Your task to perform on an android device: turn off data saver in the chrome app Image 0: 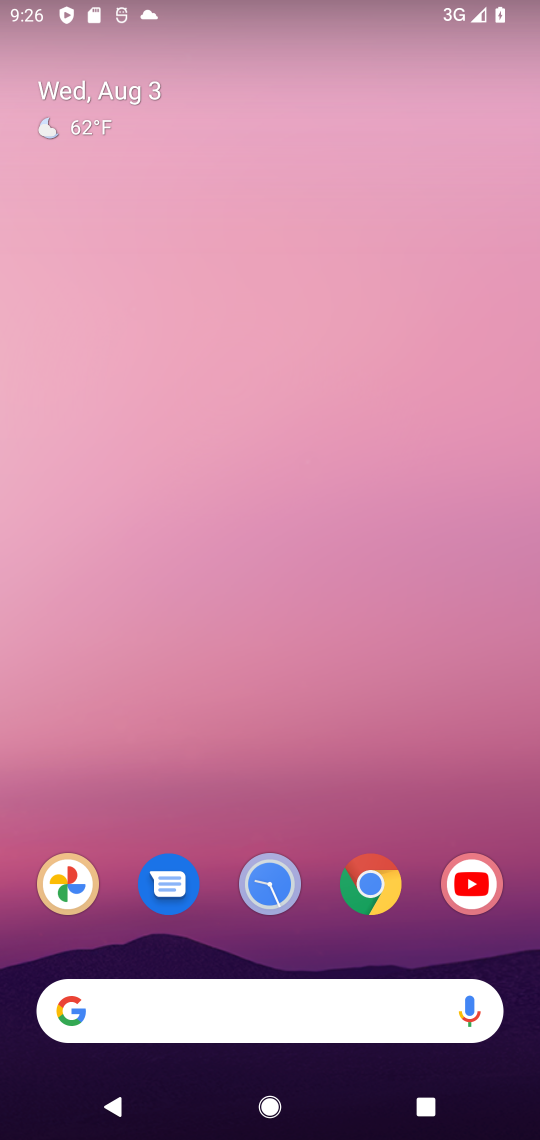
Step 0: click (533, 1124)
Your task to perform on an android device: turn off data saver in the chrome app Image 1: 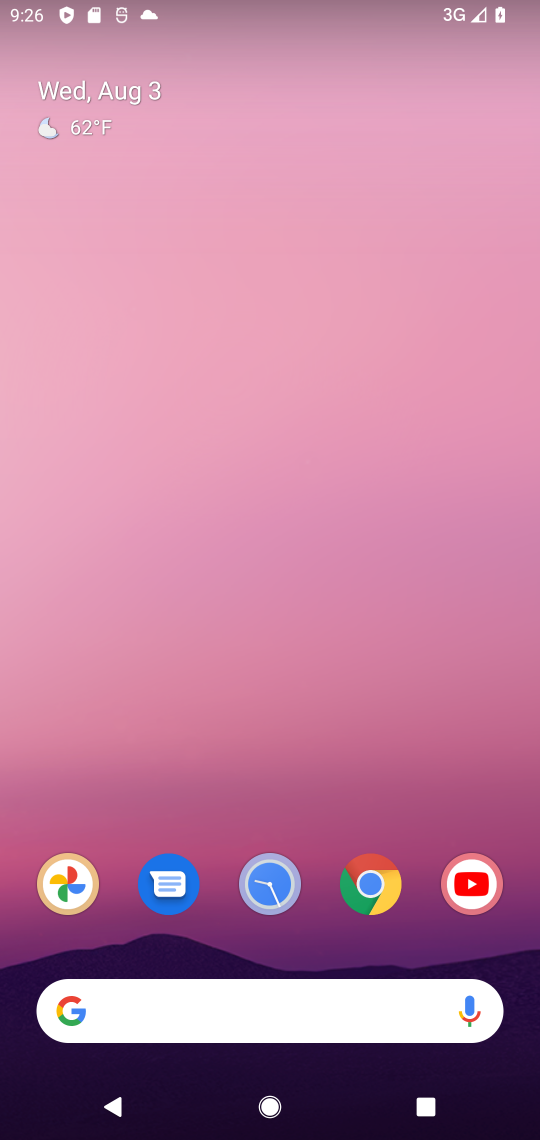
Step 1: drag from (312, 665) to (342, 583)
Your task to perform on an android device: turn off data saver in the chrome app Image 2: 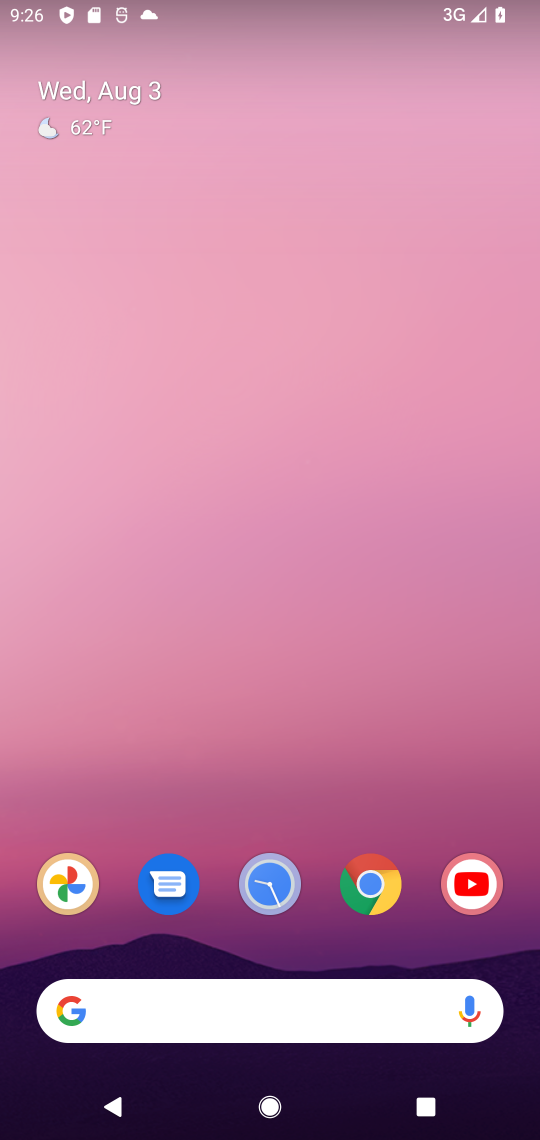
Step 2: click (312, 541)
Your task to perform on an android device: turn off data saver in the chrome app Image 3: 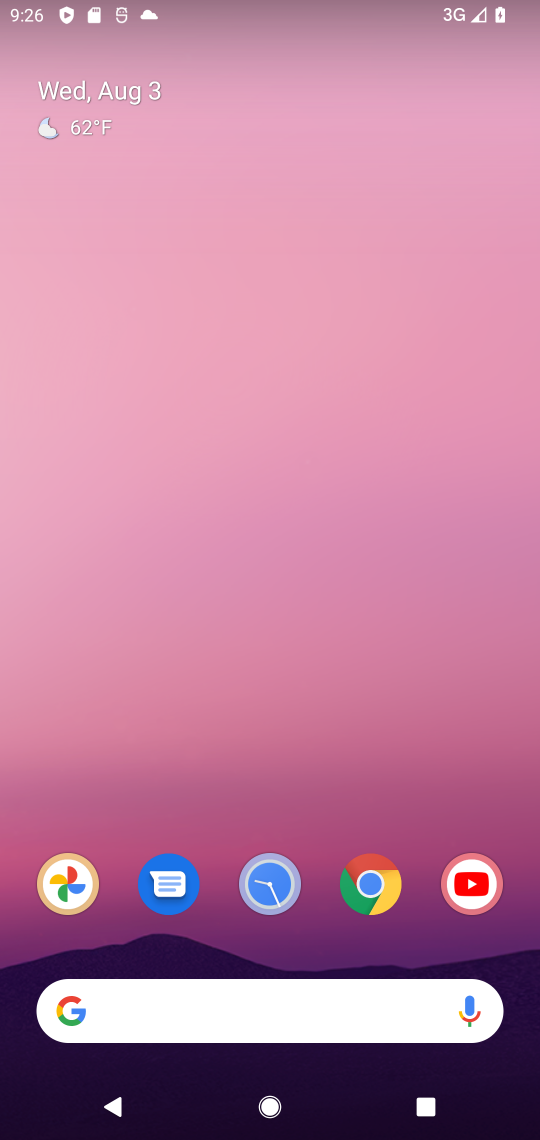
Step 3: drag from (223, 935) to (485, 97)
Your task to perform on an android device: turn off data saver in the chrome app Image 4: 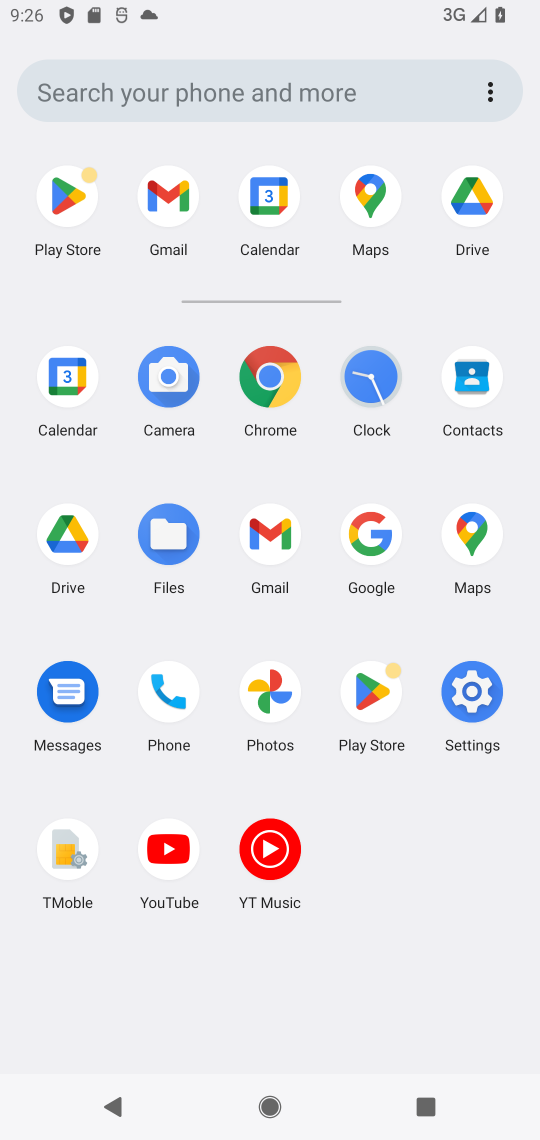
Step 4: click (262, 372)
Your task to perform on an android device: turn off data saver in the chrome app Image 5: 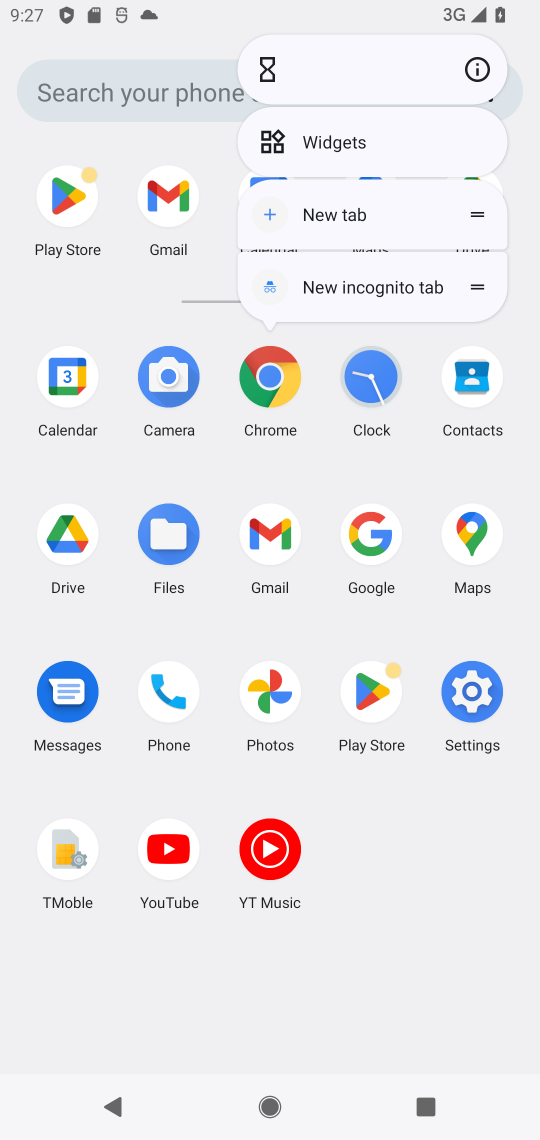
Step 5: click (275, 393)
Your task to perform on an android device: turn off data saver in the chrome app Image 6: 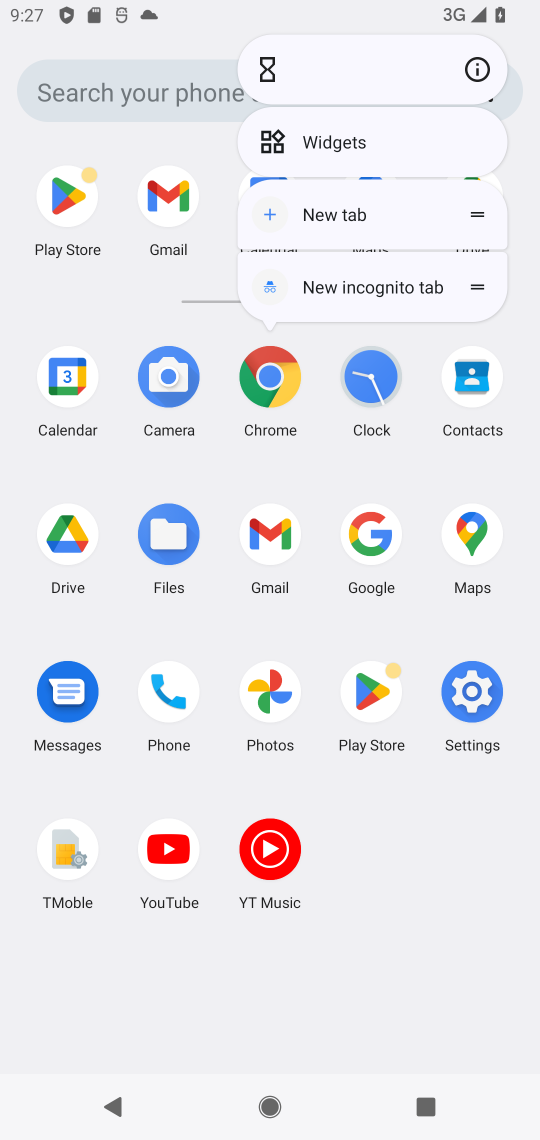
Step 6: click (471, 74)
Your task to perform on an android device: turn off data saver in the chrome app Image 7: 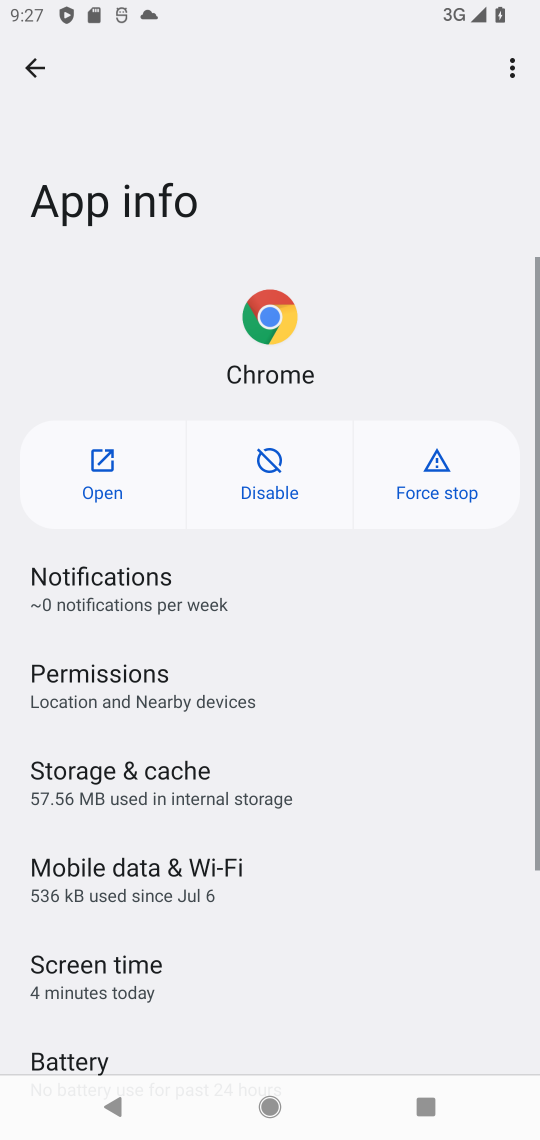
Step 7: drag from (327, 822) to (401, 435)
Your task to perform on an android device: turn off data saver in the chrome app Image 8: 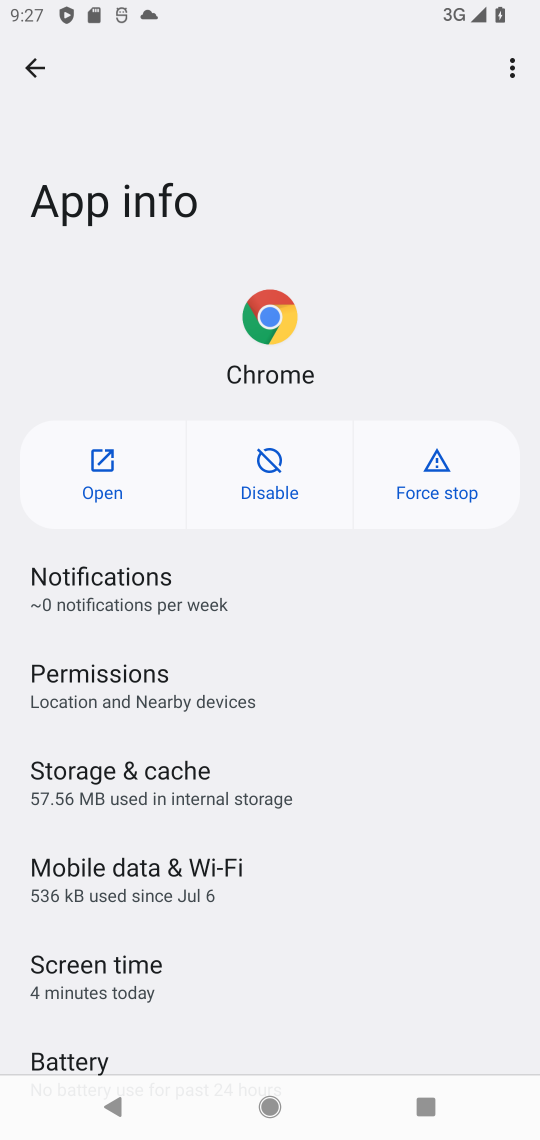
Step 8: click (80, 489)
Your task to perform on an android device: turn off data saver in the chrome app Image 9: 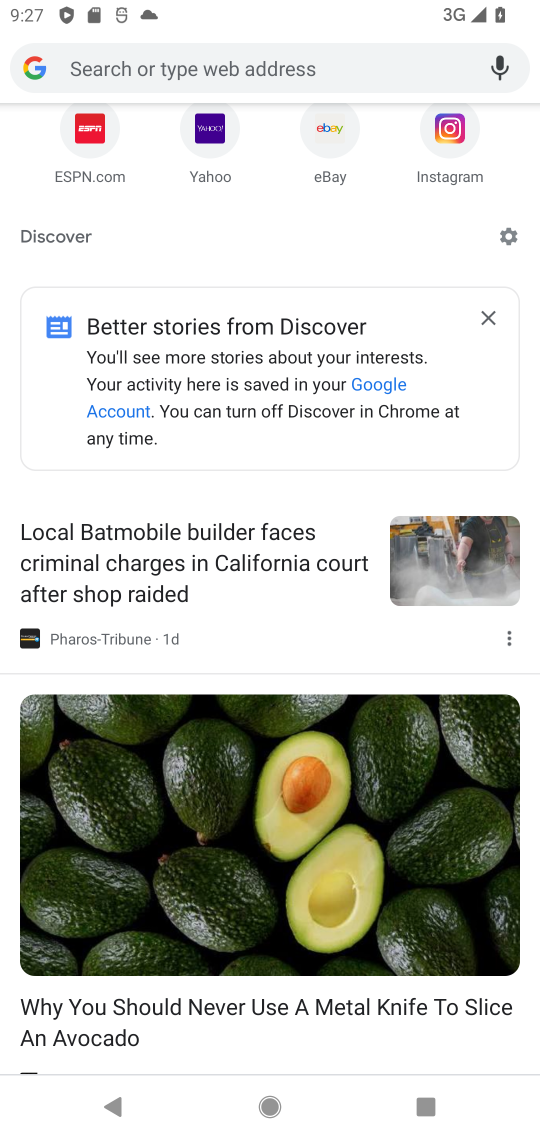
Step 9: drag from (327, 402) to (372, 1131)
Your task to perform on an android device: turn off data saver in the chrome app Image 10: 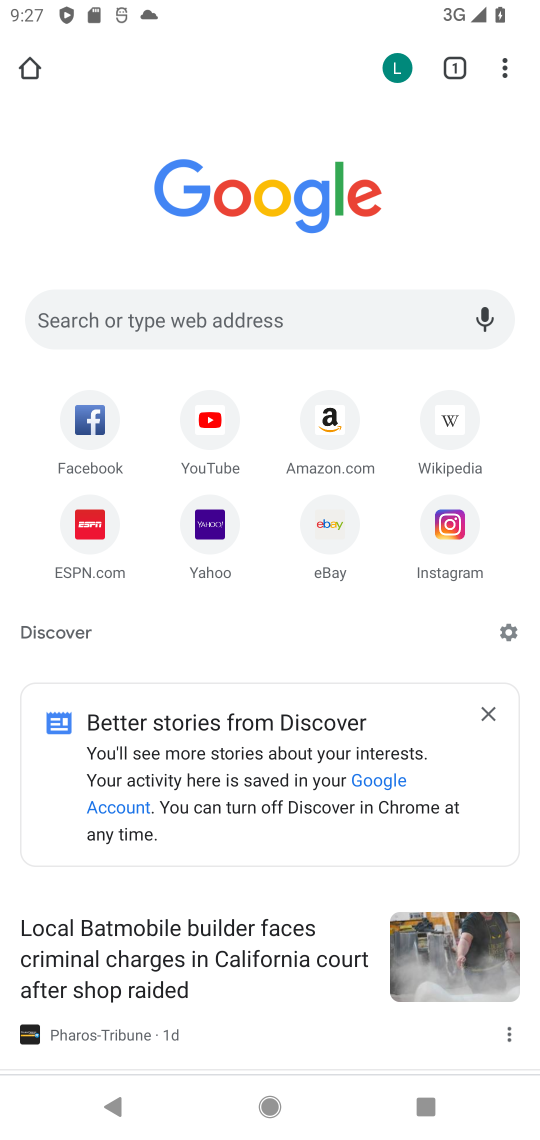
Step 10: drag from (513, 58) to (325, 667)
Your task to perform on an android device: turn off data saver in the chrome app Image 11: 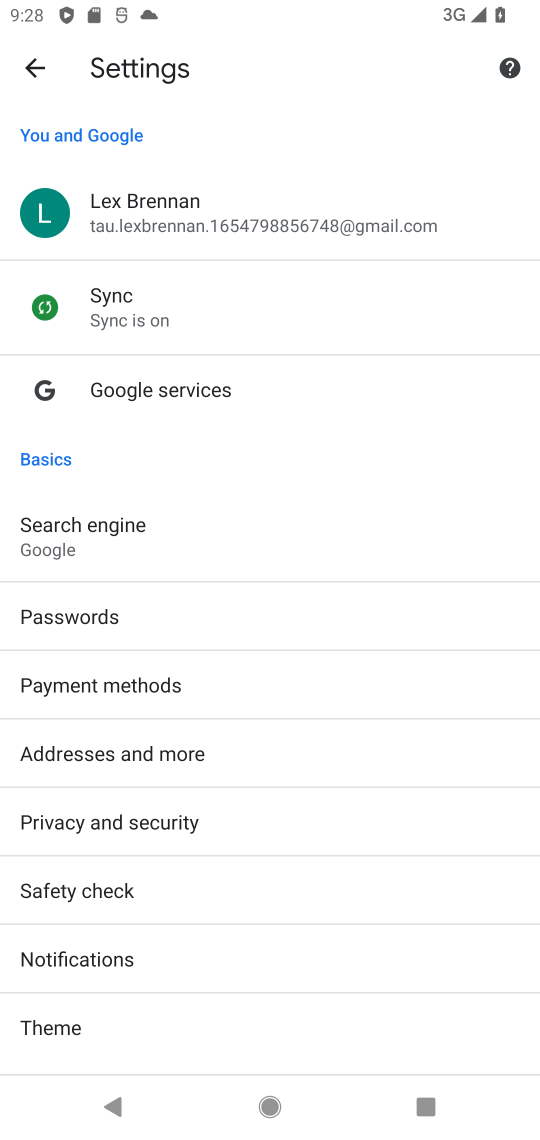
Step 11: drag from (231, 892) to (345, 315)
Your task to perform on an android device: turn off data saver in the chrome app Image 12: 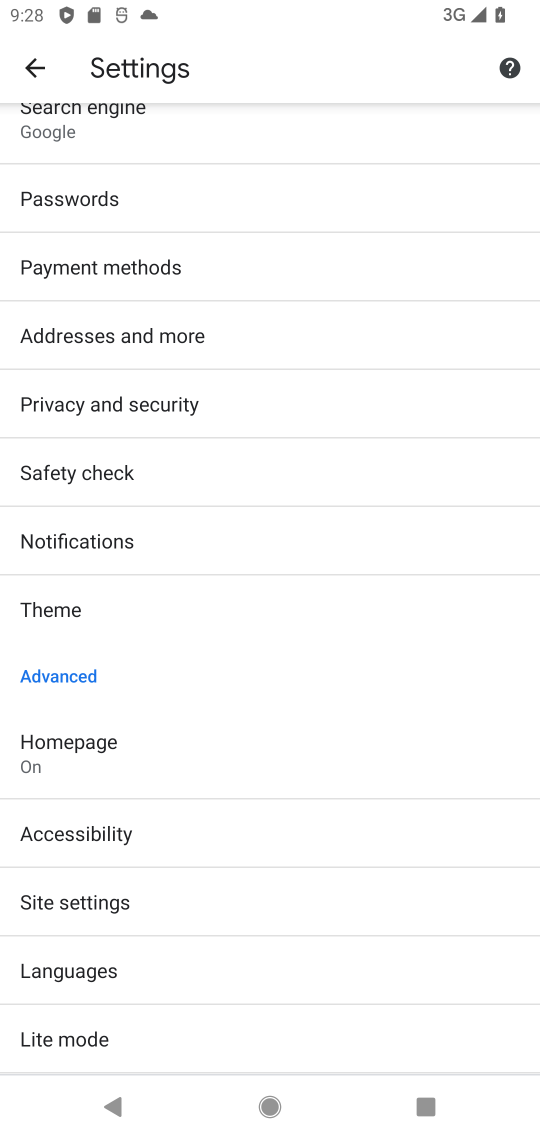
Step 12: drag from (226, 898) to (333, 366)
Your task to perform on an android device: turn off data saver in the chrome app Image 13: 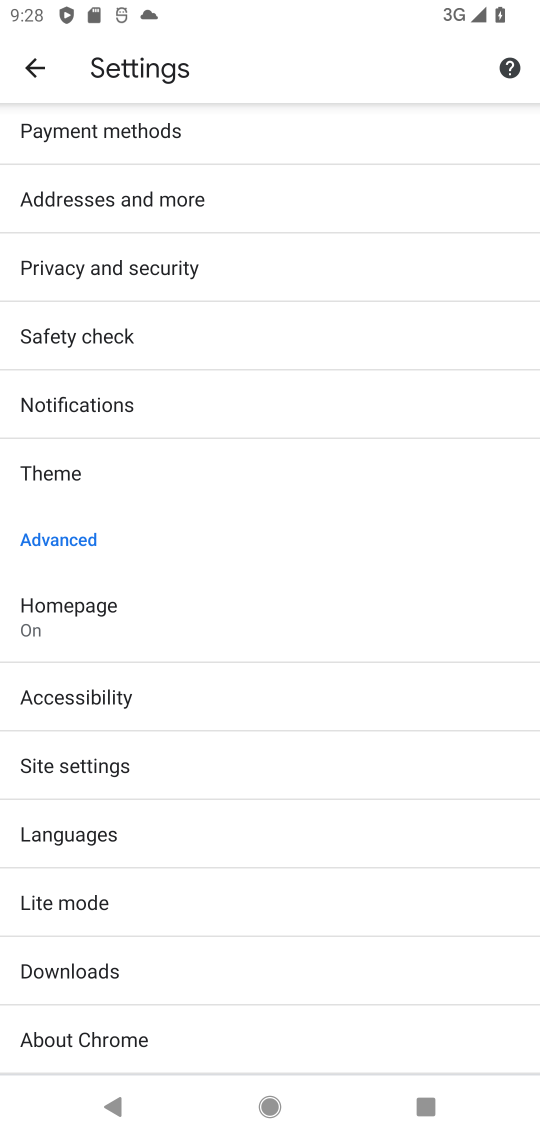
Step 13: click (82, 894)
Your task to perform on an android device: turn off data saver in the chrome app Image 14: 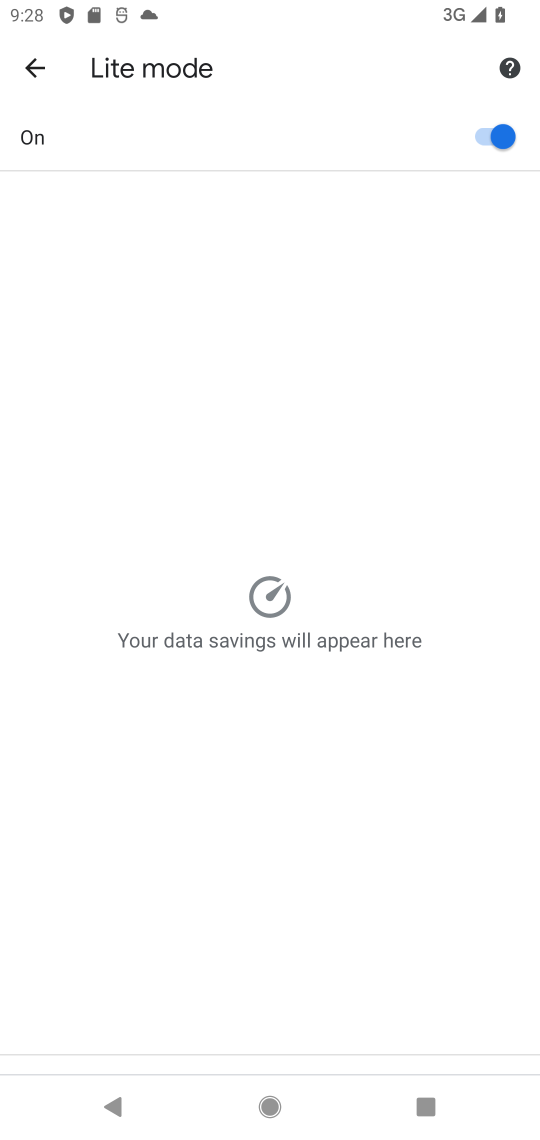
Step 14: click (498, 148)
Your task to perform on an android device: turn off data saver in the chrome app Image 15: 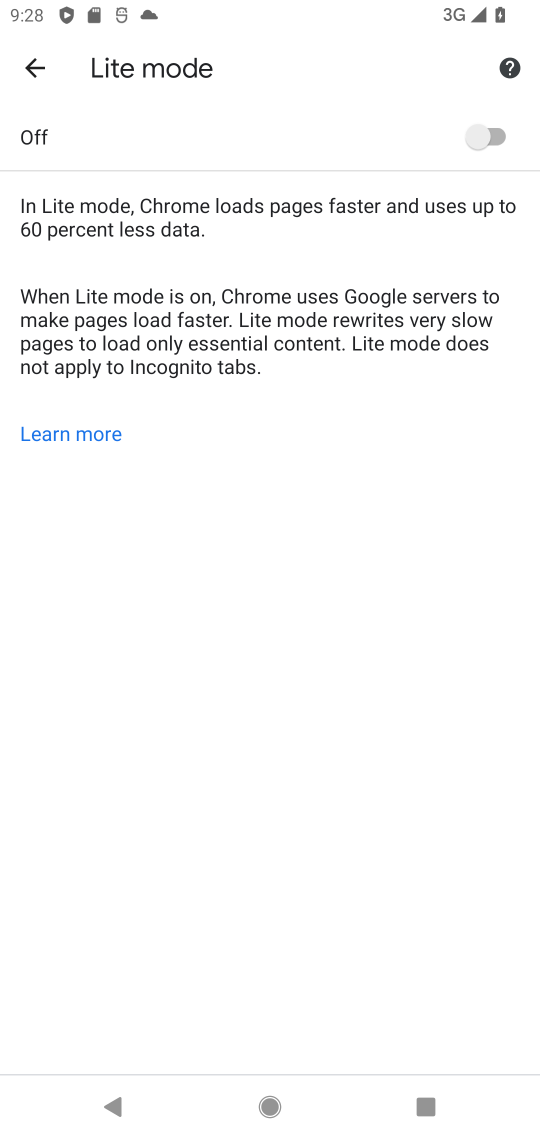
Step 15: task complete